Your task to perform on an android device: turn off notifications settings in the gmail app Image 0: 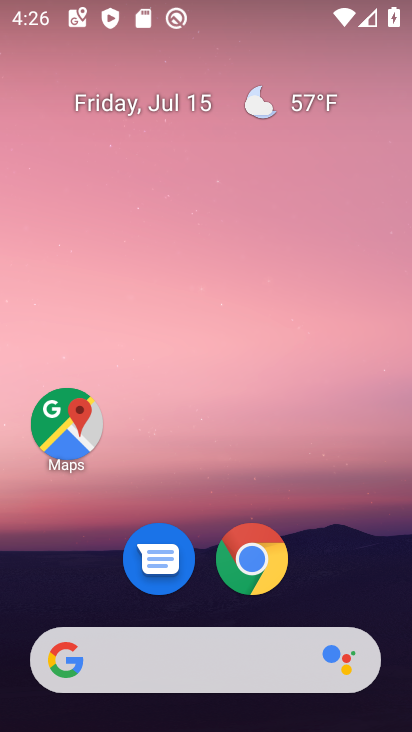
Step 0: drag from (91, 574) to (213, 58)
Your task to perform on an android device: turn off notifications settings in the gmail app Image 1: 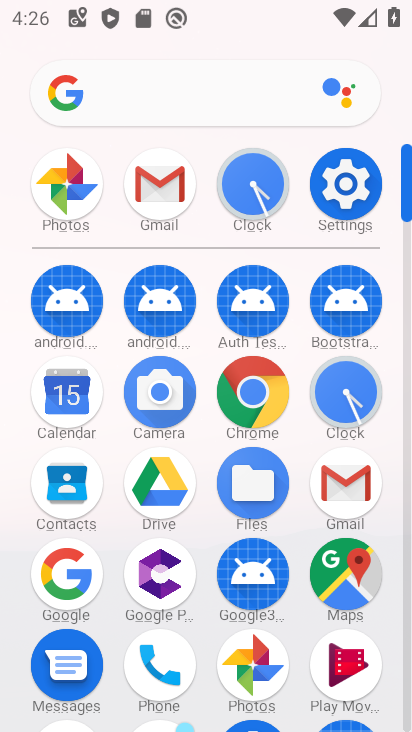
Step 1: click (170, 188)
Your task to perform on an android device: turn off notifications settings in the gmail app Image 2: 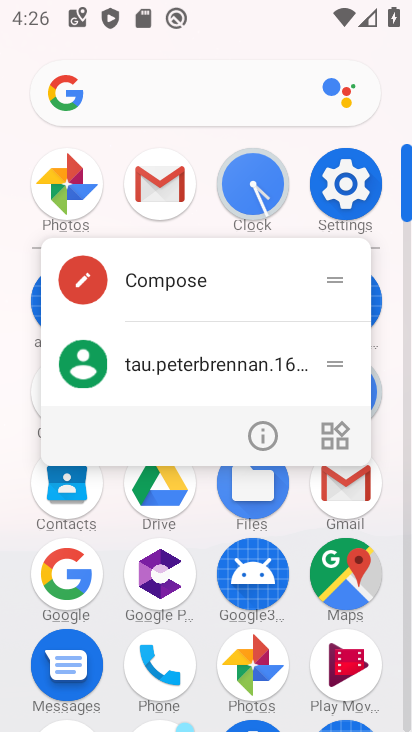
Step 2: click (273, 431)
Your task to perform on an android device: turn off notifications settings in the gmail app Image 3: 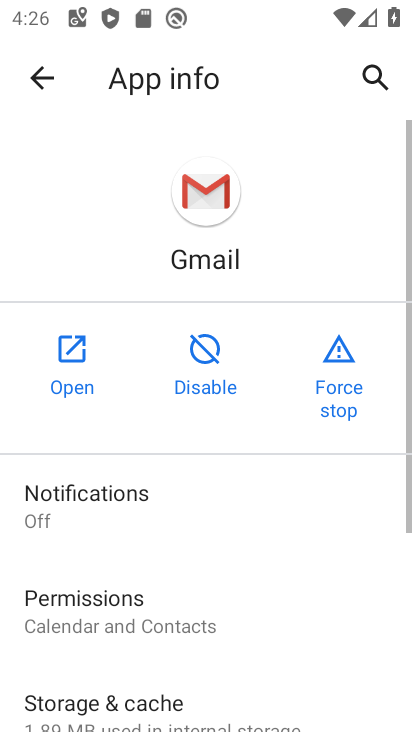
Step 3: click (120, 518)
Your task to perform on an android device: turn off notifications settings in the gmail app Image 4: 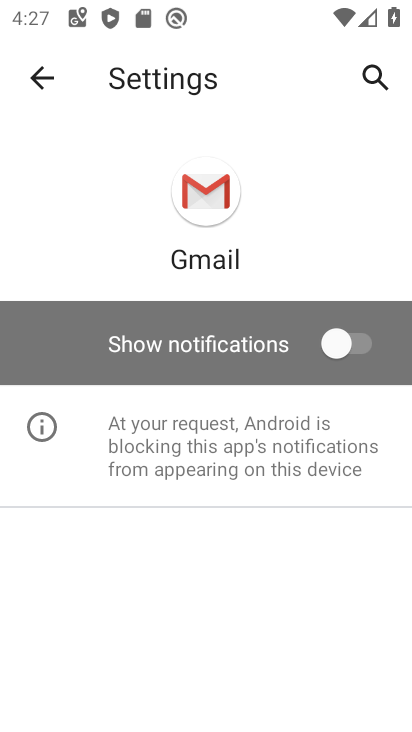
Step 4: task complete